Your task to perform on an android device: turn notification dots off Image 0: 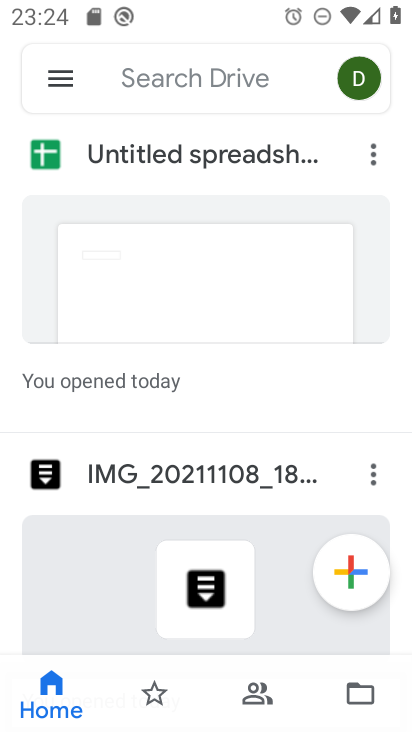
Step 0: press home button
Your task to perform on an android device: turn notification dots off Image 1: 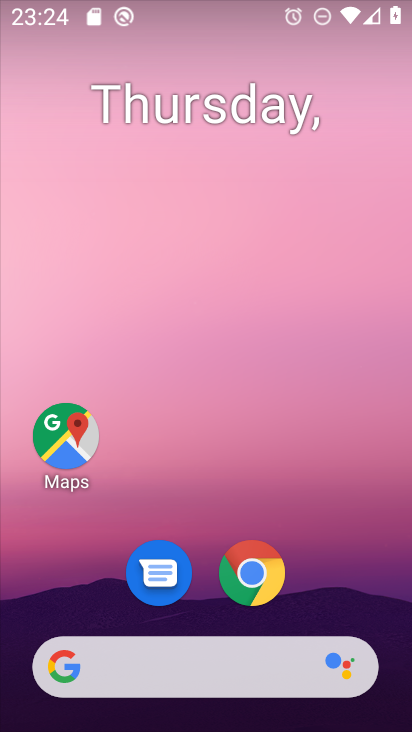
Step 1: drag from (319, 525) to (207, 52)
Your task to perform on an android device: turn notification dots off Image 2: 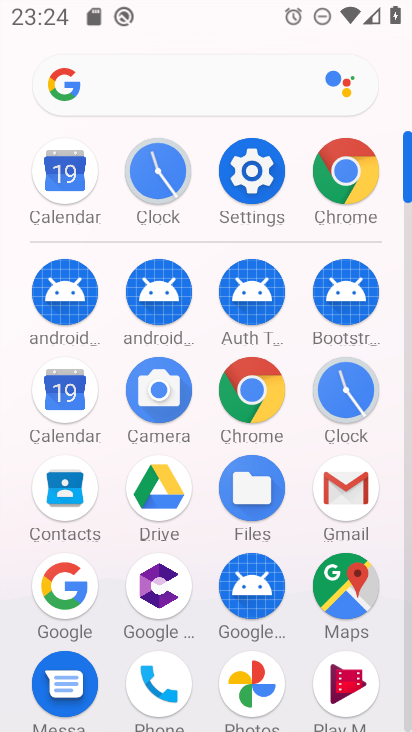
Step 2: click (277, 167)
Your task to perform on an android device: turn notification dots off Image 3: 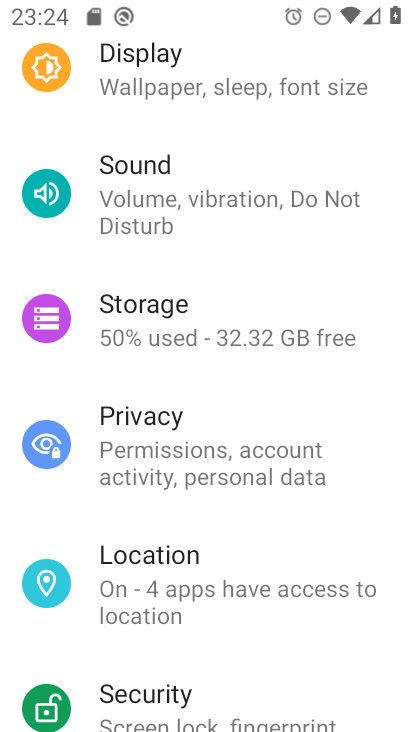
Step 3: drag from (220, 524) to (259, 174)
Your task to perform on an android device: turn notification dots off Image 4: 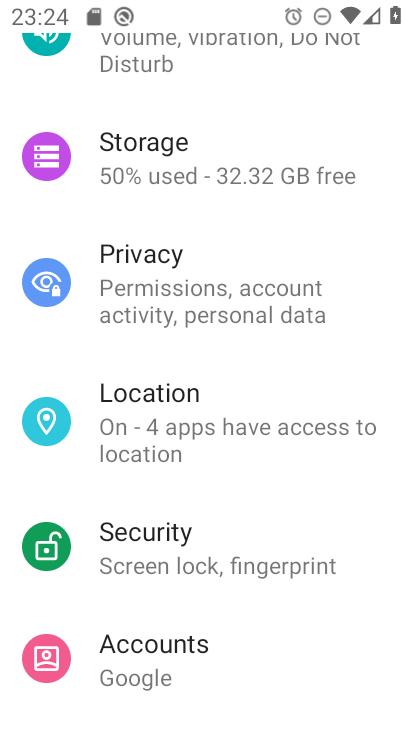
Step 4: drag from (236, 215) to (217, 674)
Your task to perform on an android device: turn notification dots off Image 5: 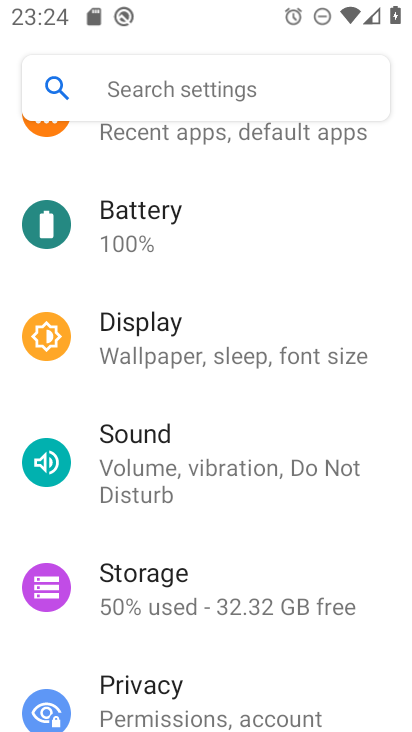
Step 5: drag from (203, 276) to (232, 705)
Your task to perform on an android device: turn notification dots off Image 6: 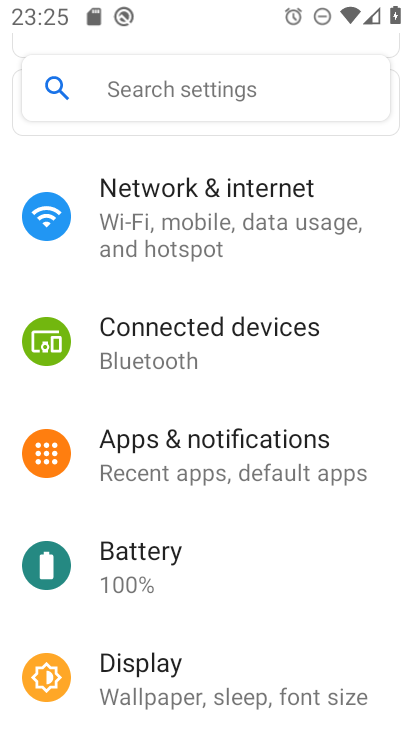
Step 6: click (222, 443)
Your task to perform on an android device: turn notification dots off Image 7: 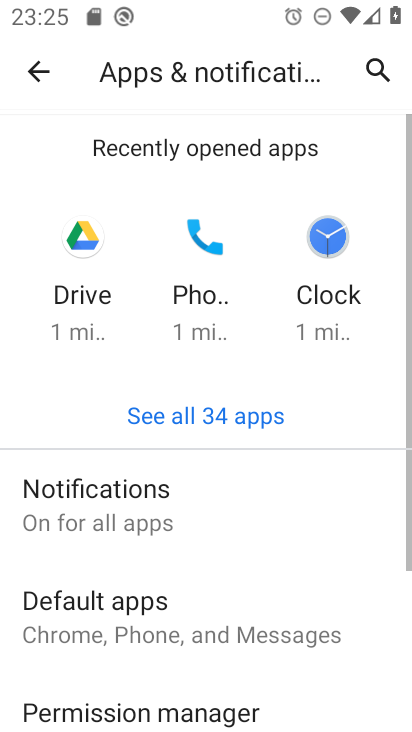
Step 7: click (148, 505)
Your task to perform on an android device: turn notification dots off Image 8: 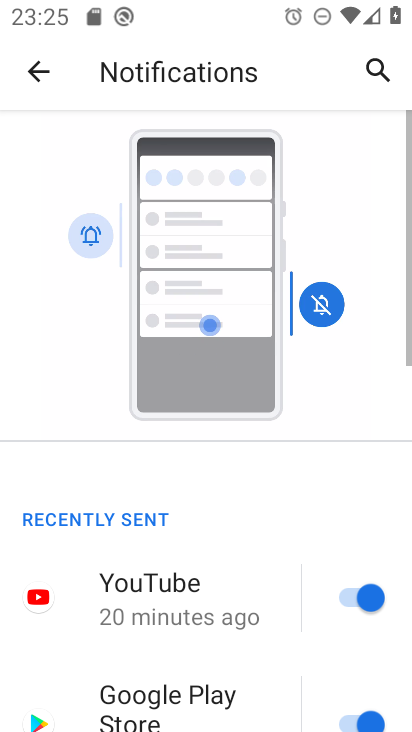
Step 8: drag from (209, 580) to (261, 94)
Your task to perform on an android device: turn notification dots off Image 9: 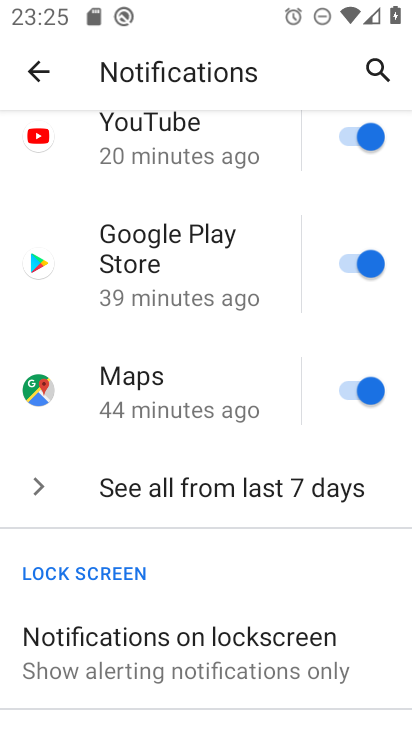
Step 9: drag from (194, 505) to (263, 120)
Your task to perform on an android device: turn notification dots off Image 10: 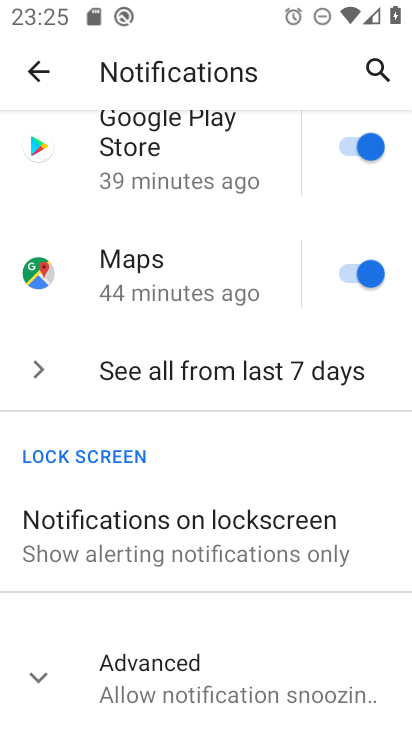
Step 10: click (195, 635)
Your task to perform on an android device: turn notification dots off Image 11: 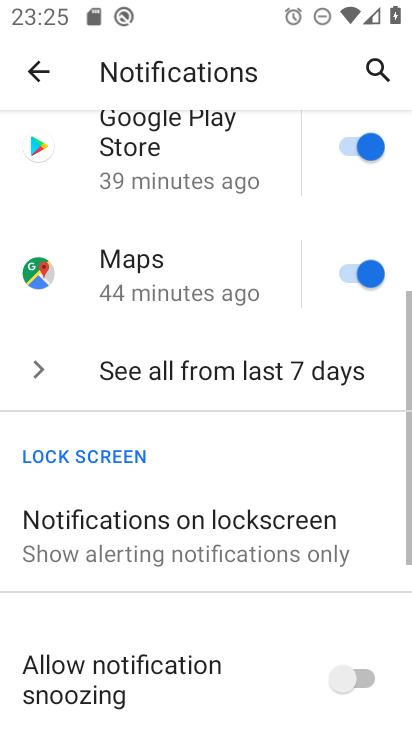
Step 11: task complete